Your task to perform on an android device: Search for Italian restaurants on Maps Image 0: 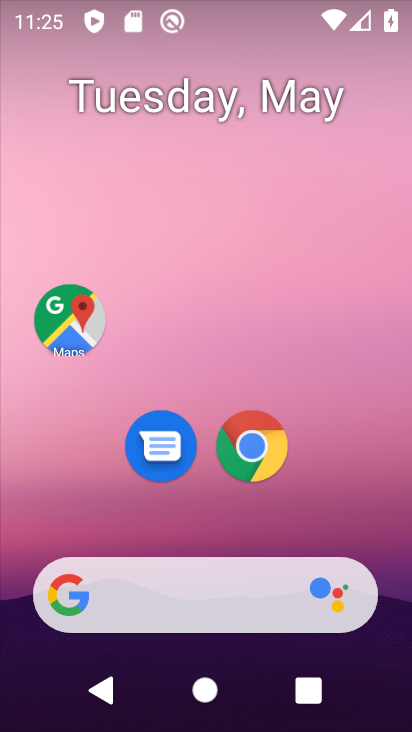
Step 0: drag from (230, 716) to (230, 1)
Your task to perform on an android device: Search for Italian restaurants on Maps Image 1: 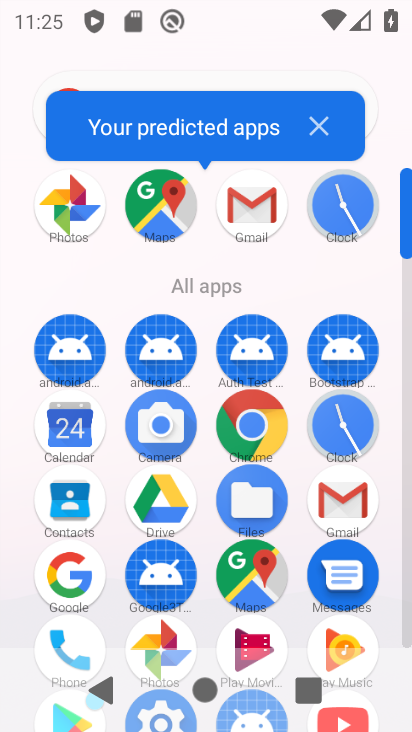
Step 1: click (249, 576)
Your task to perform on an android device: Search for Italian restaurants on Maps Image 2: 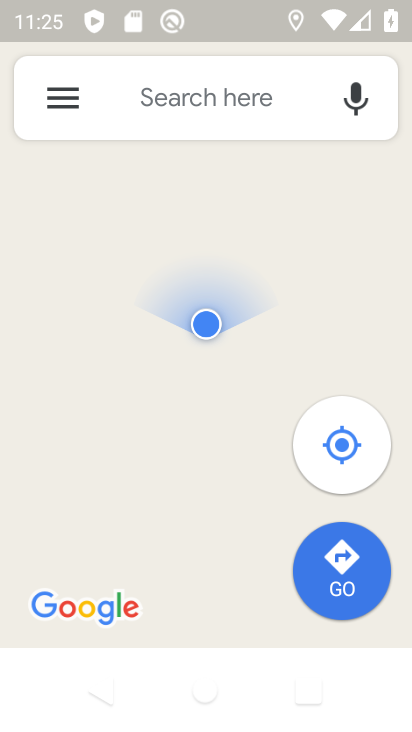
Step 2: click (138, 120)
Your task to perform on an android device: Search for Italian restaurants on Maps Image 3: 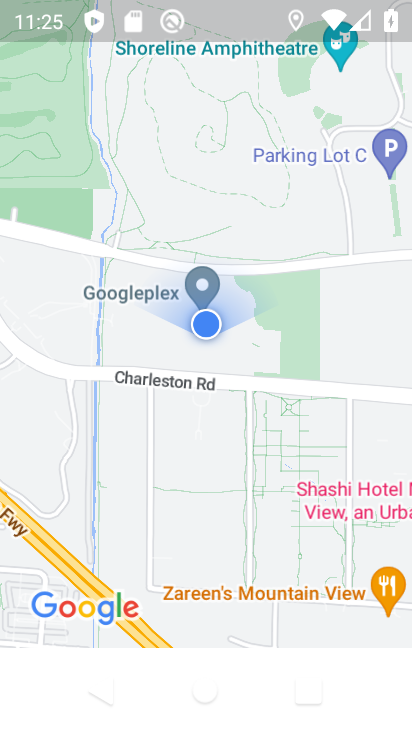
Step 3: type "italian restaurants"
Your task to perform on an android device: Search for Italian restaurants on Maps Image 4: 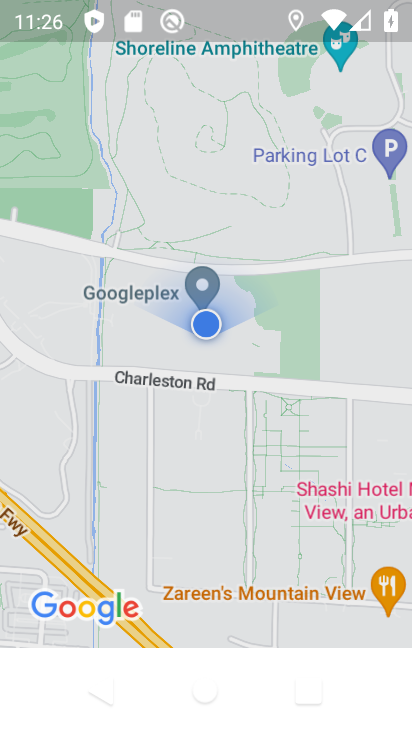
Step 4: click (154, 175)
Your task to perform on an android device: Search for Italian restaurants on Maps Image 5: 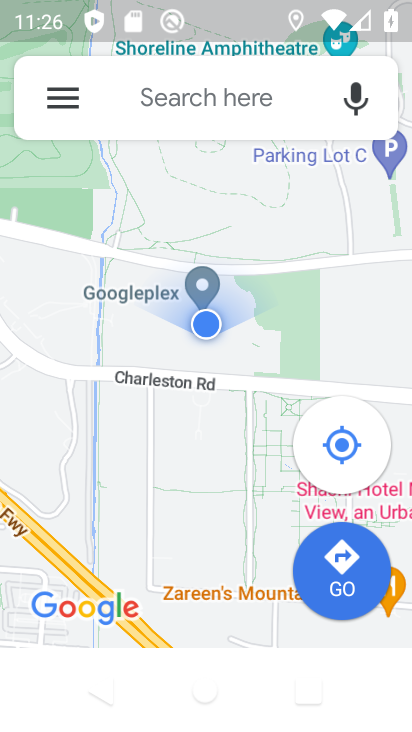
Step 5: click (193, 95)
Your task to perform on an android device: Search for Italian restaurants on Maps Image 6: 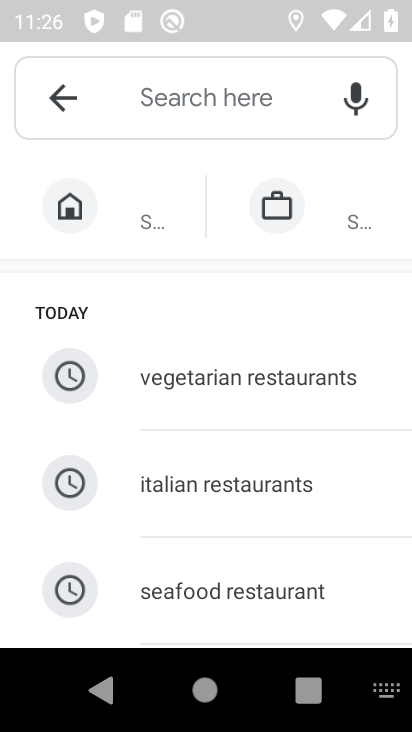
Step 6: type "italian restaurants"
Your task to perform on an android device: Search for Italian restaurants on Maps Image 7: 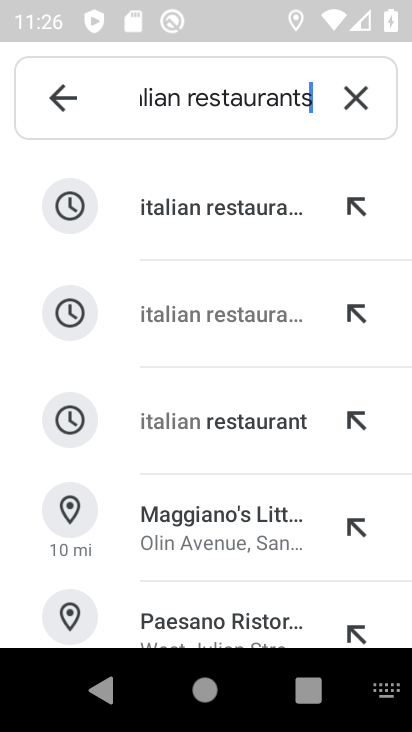
Step 7: click (184, 207)
Your task to perform on an android device: Search for Italian restaurants on Maps Image 8: 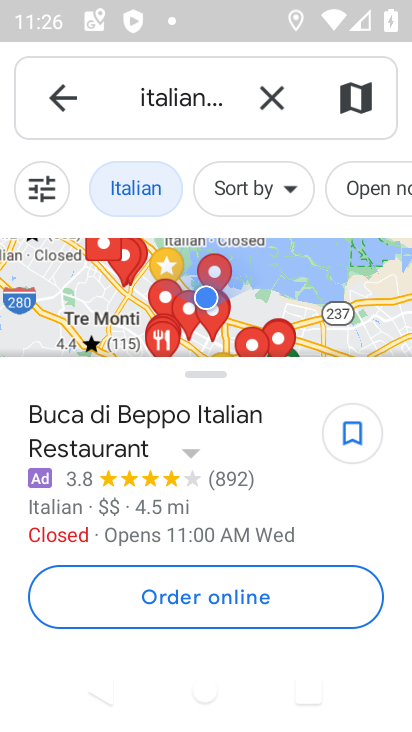
Step 8: task complete